Your task to perform on an android device: install app "Google Docs" Image 0: 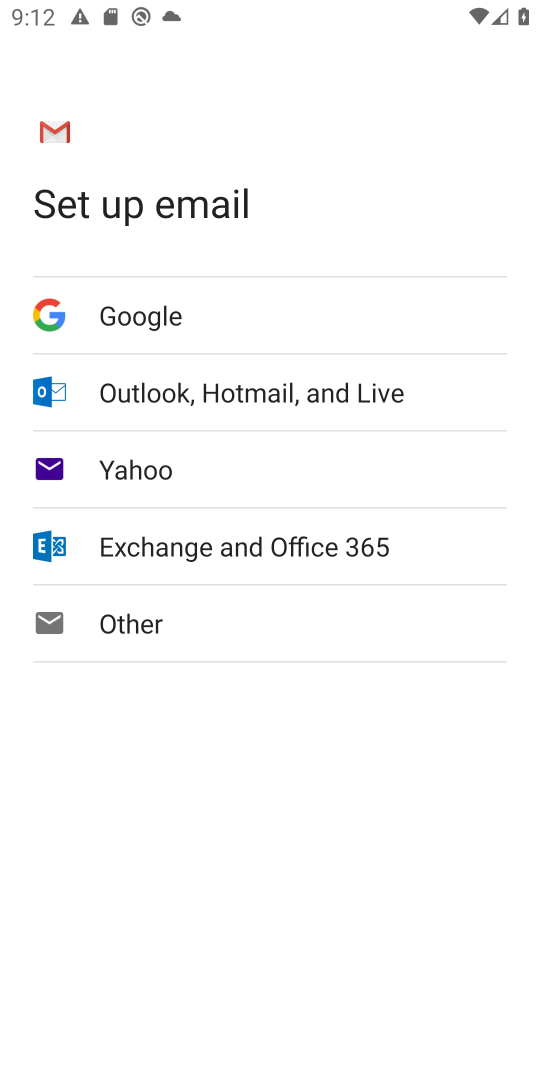
Step 0: press home button
Your task to perform on an android device: install app "Google Docs" Image 1: 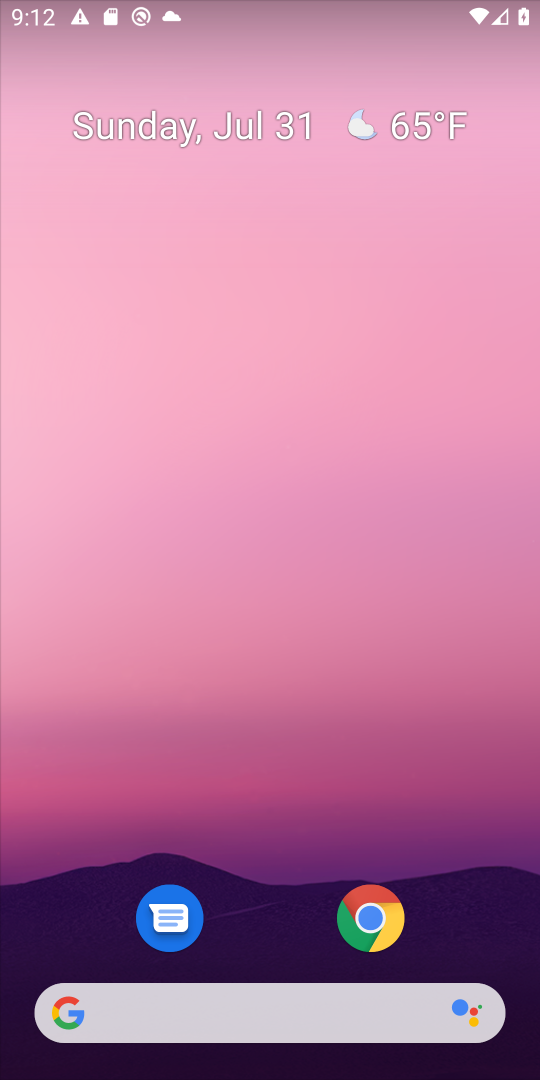
Step 1: drag from (369, 1046) to (442, 26)
Your task to perform on an android device: install app "Google Docs" Image 2: 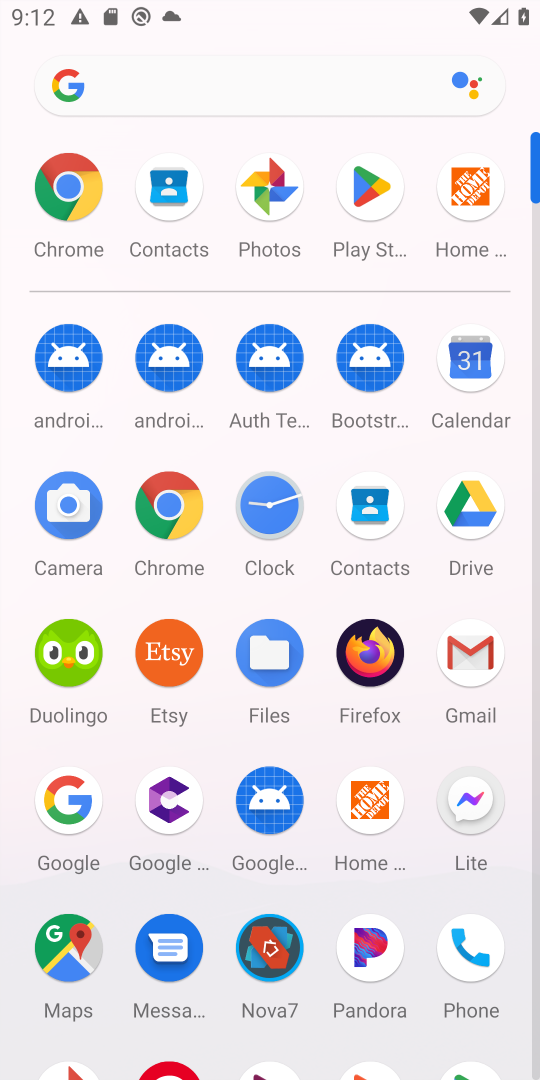
Step 2: click (370, 187)
Your task to perform on an android device: install app "Google Docs" Image 3: 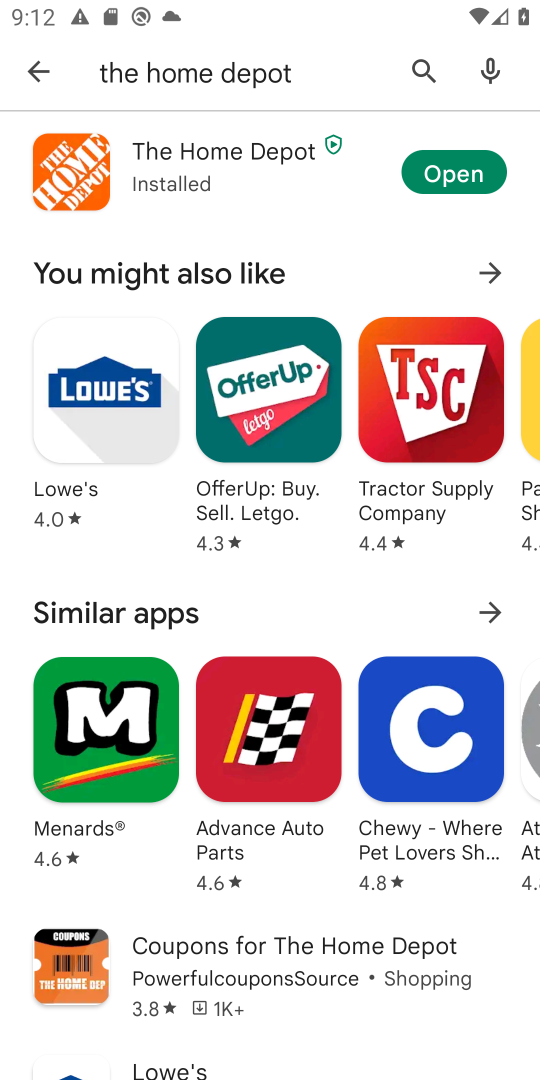
Step 3: click (419, 65)
Your task to perform on an android device: install app "Google Docs" Image 4: 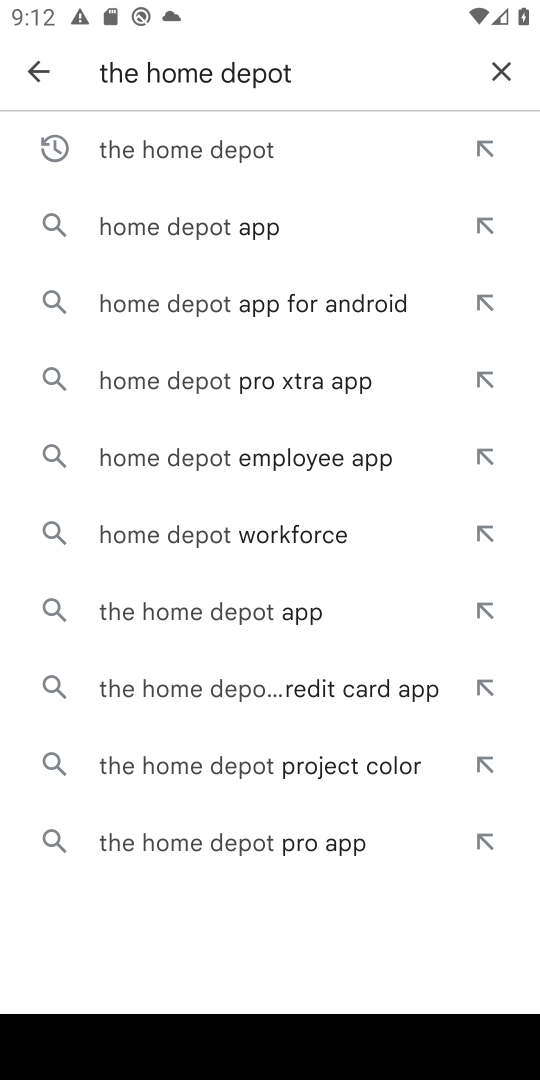
Step 4: click (507, 66)
Your task to perform on an android device: install app "Google Docs" Image 5: 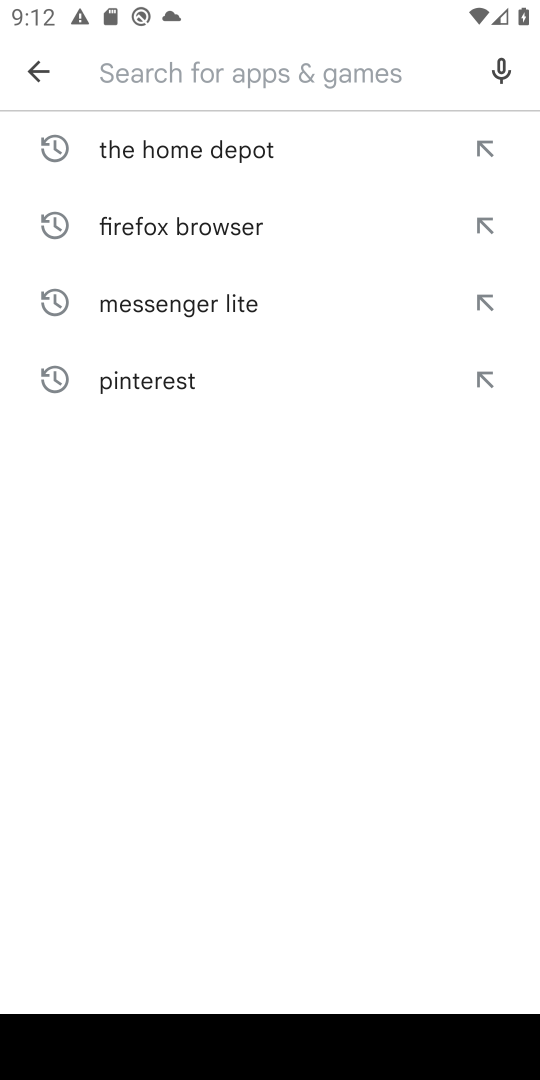
Step 5: type "Google Docs"
Your task to perform on an android device: install app "Google Docs" Image 6: 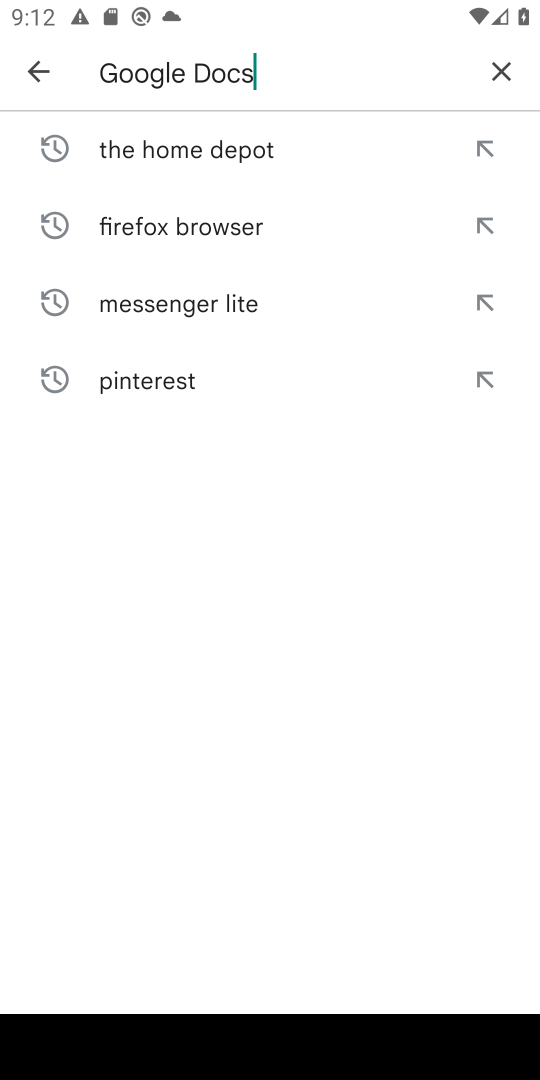
Step 6: type ""
Your task to perform on an android device: install app "Google Docs" Image 7: 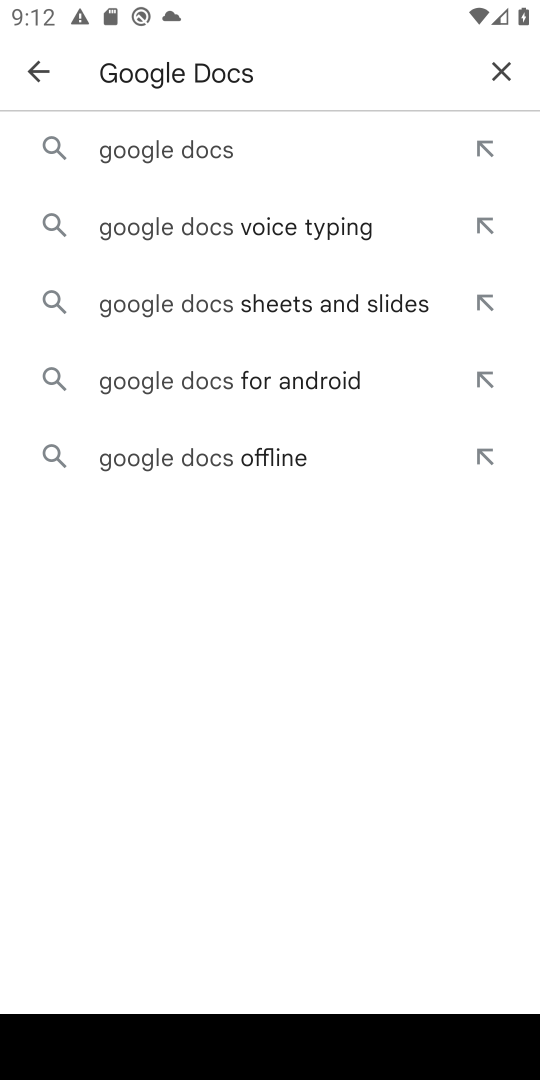
Step 7: click (226, 151)
Your task to perform on an android device: install app "Google Docs" Image 8: 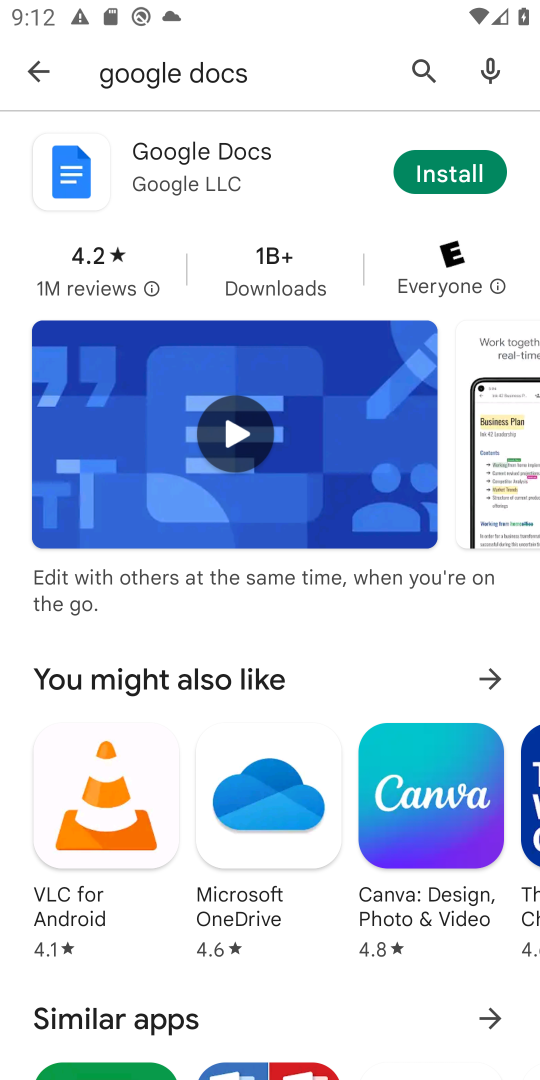
Step 8: click (477, 173)
Your task to perform on an android device: install app "Google Docs" Image 9: 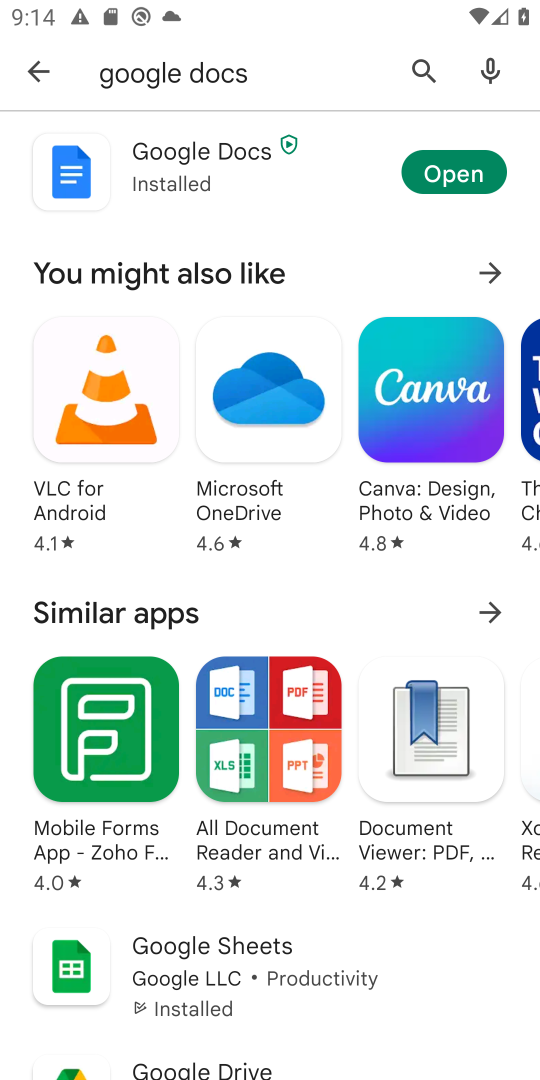
Step 9: task complete